Your task to perform on an android device: What's the weather today? Image 0: 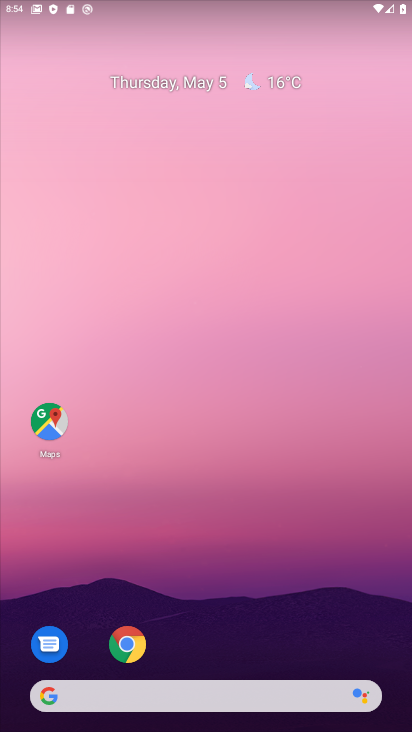
Step 0: click (198, 701)
Your task to perform on an android device: What's the weather today? Image 1: 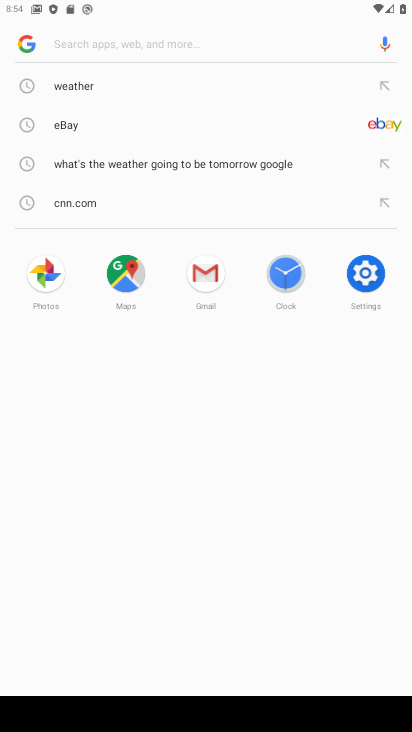
Step 1: click (102, 81)
Your task to perform on an android device: What's the weather today? Image 2: 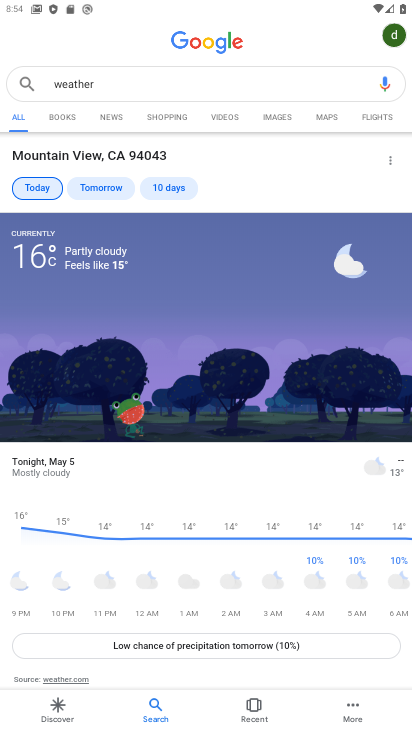
Step 2: task complete